Your task to perform on an android device: uninstall "YouTube Kids" Image 0: 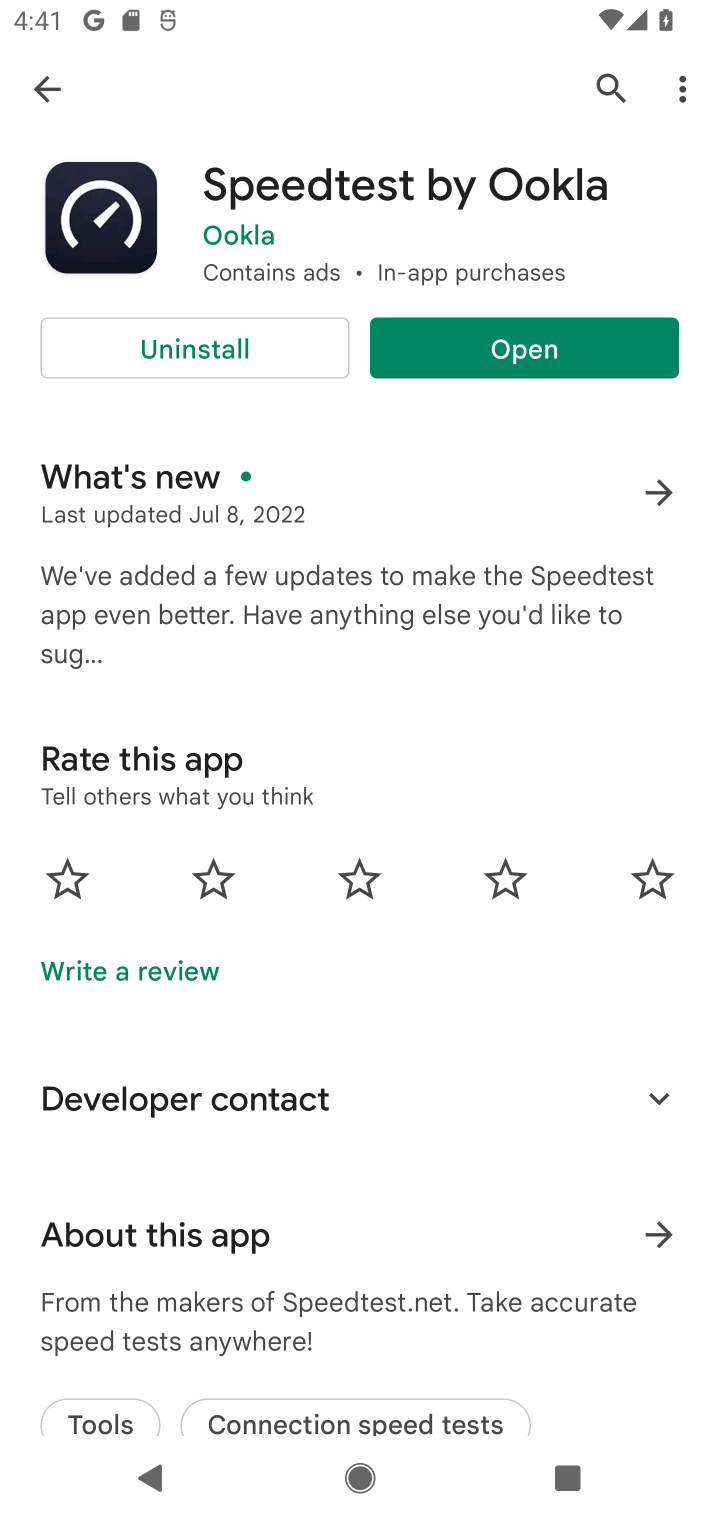
Step 0: click (594, 88)
Your task to perform on an android device: uninstall "YouTube Kids" Image 1: 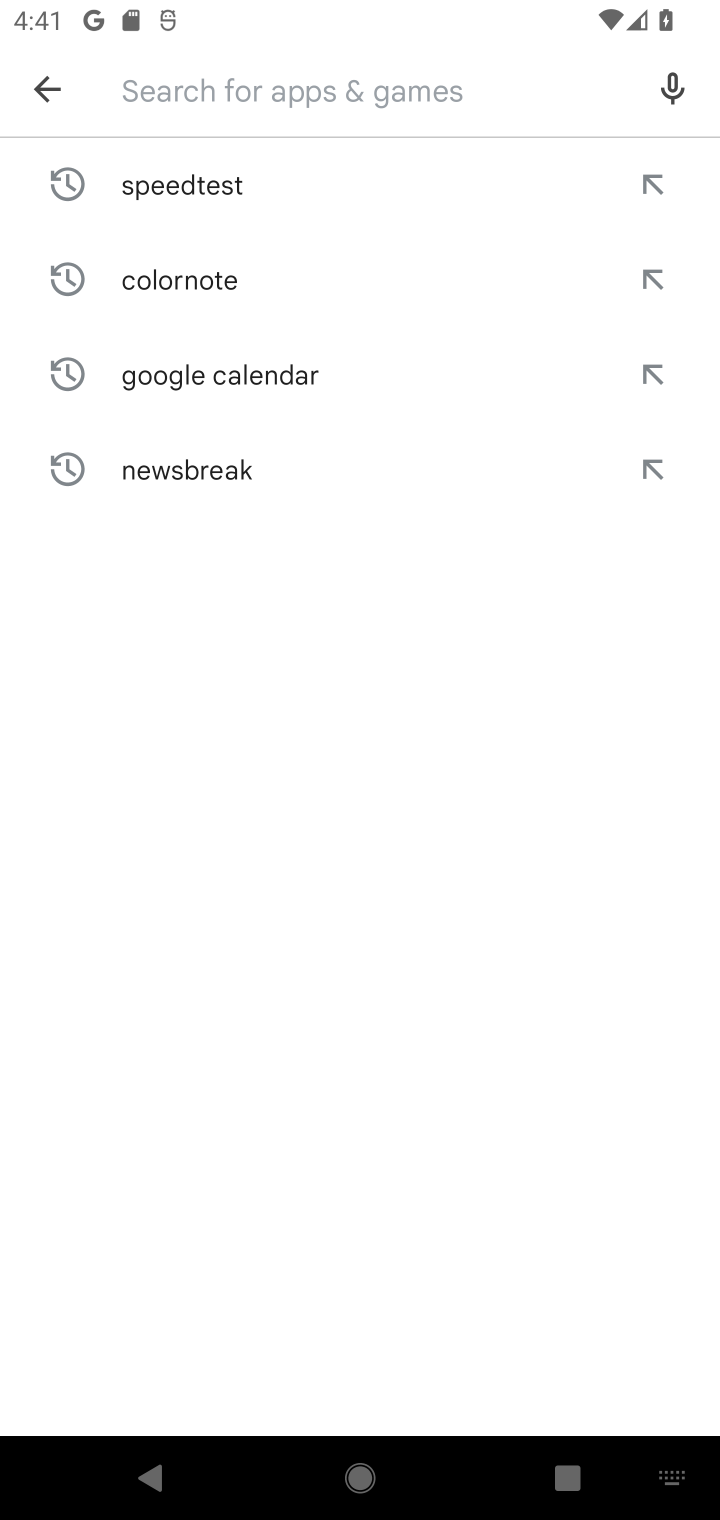
Step 1: type "youtube kid"
Your task to perform on an android device: uninstall "YouTube Kids" Image 2: 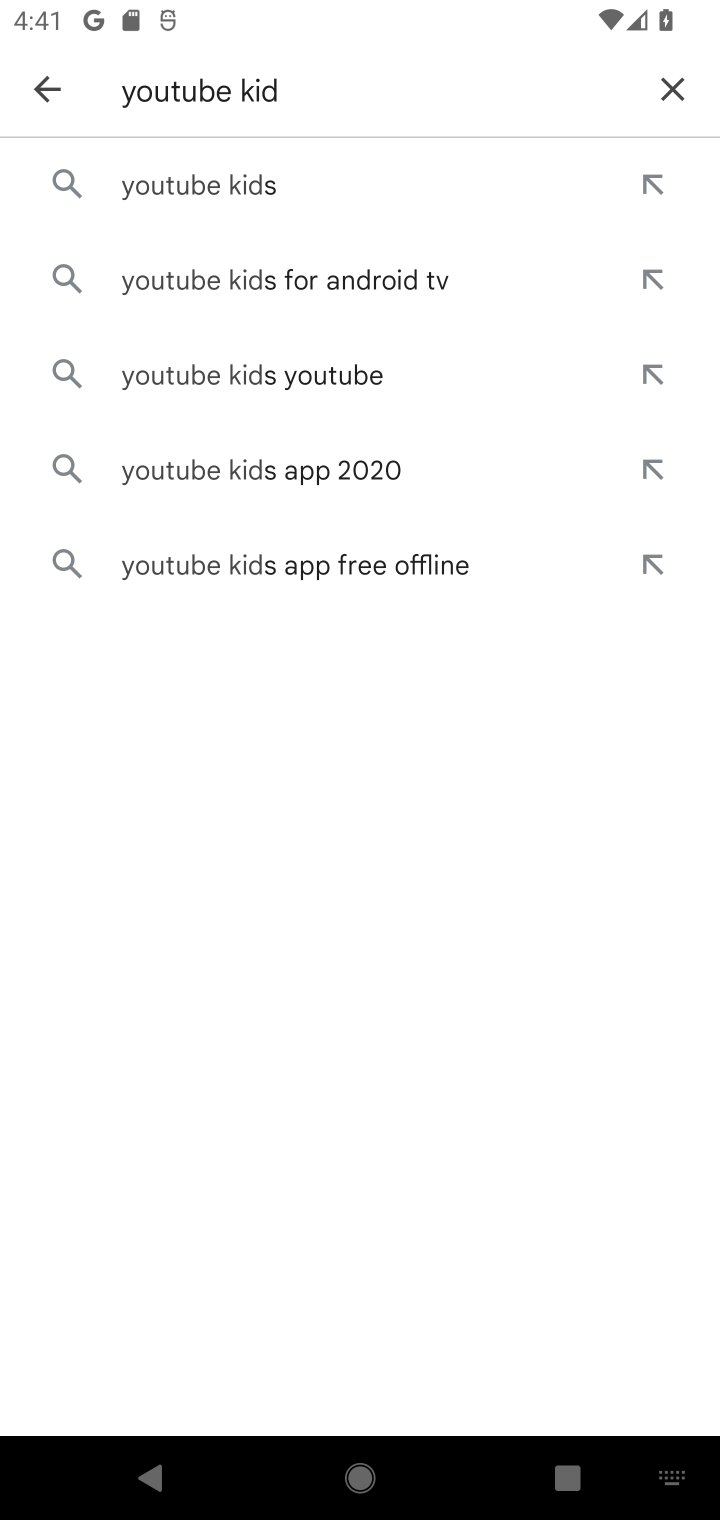
Step 2: click (194, 193)
Your task to perform on an android device: uninstall "YouTube Kids" Image 3: 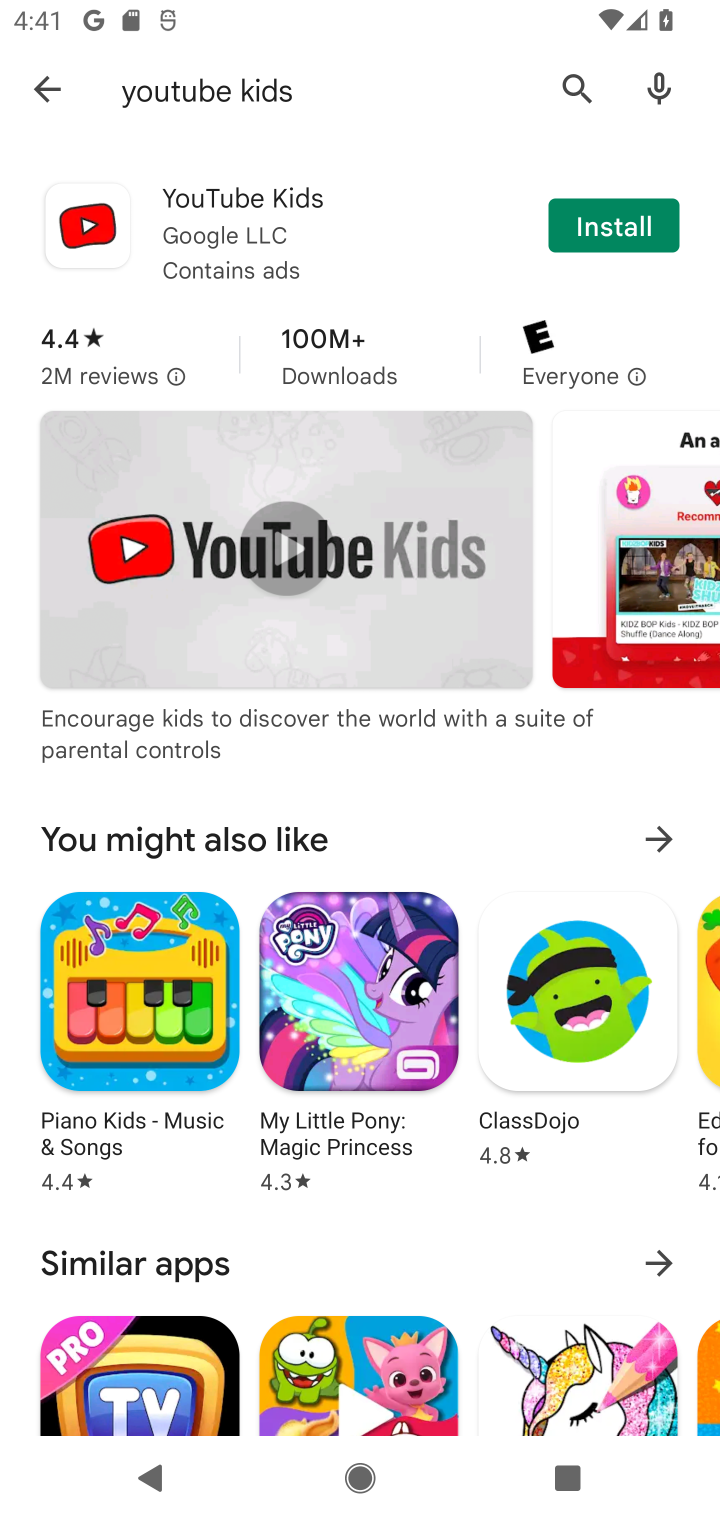
Step 3: click (568, 227)
Your task to perform on an android device: uninstall "YouTube Kids" Image 4: 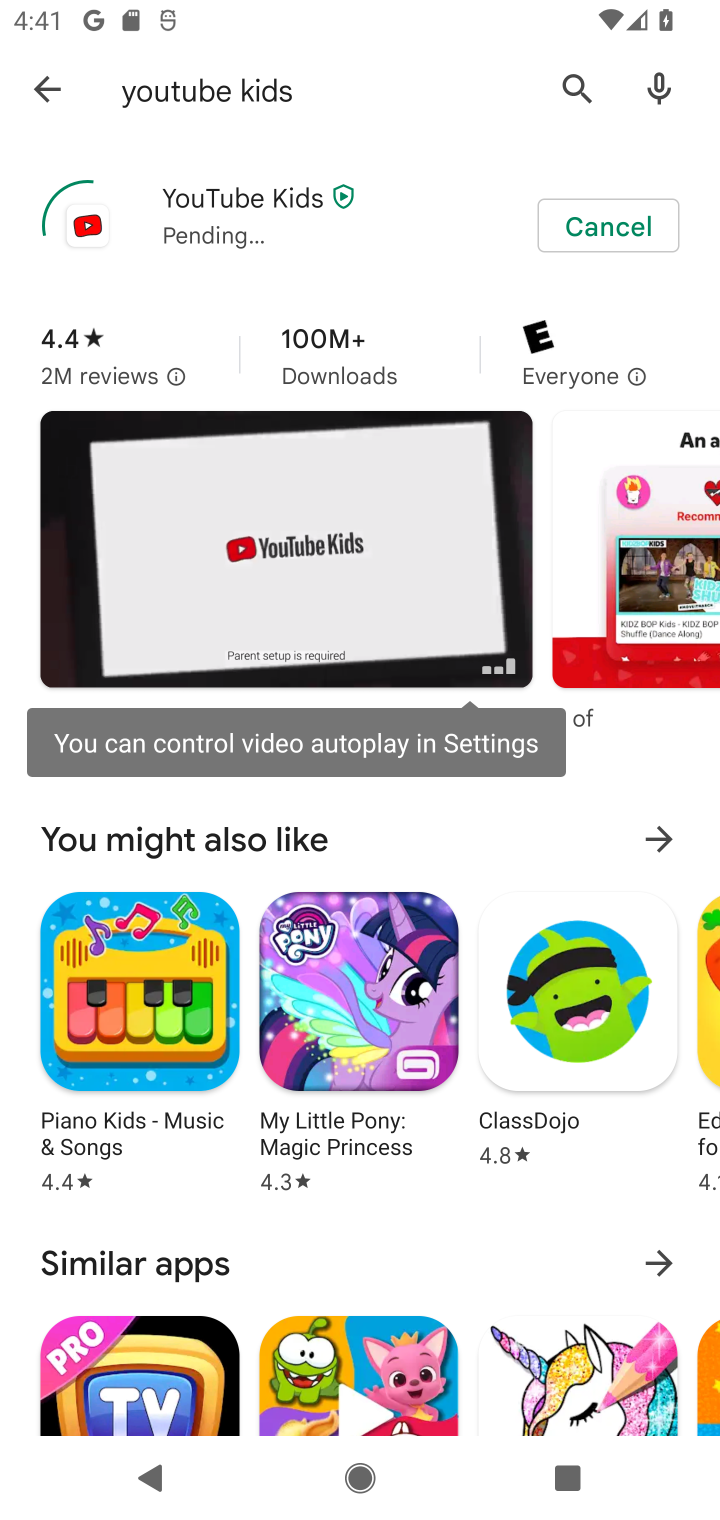
Step 4: task complete